Your task to perform on an android device: see sites visited before in the chrome app Image 0: 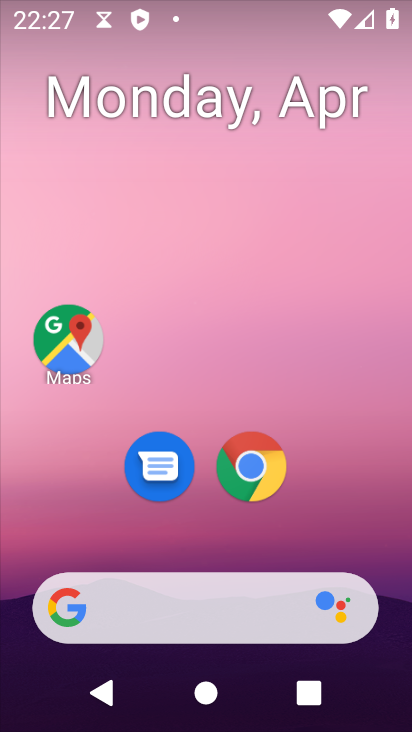
Step 0: click (264, 455)
Your task to perform on an android device: see sites visited before in the chrome app Image 1: 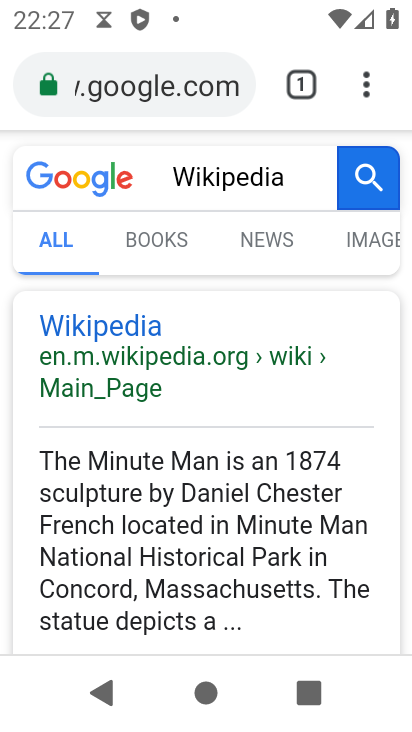
Step 1: click (372, 88)
Your task to perform on an android device: see sites visited before in the chrome app Image 2: 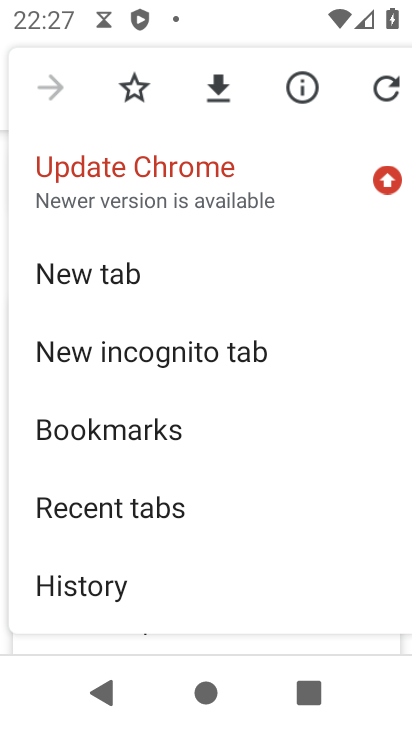
Step 2: click (99, 588)
Your task to perform on an android device: see sites visited before in the chrome app Image 3: 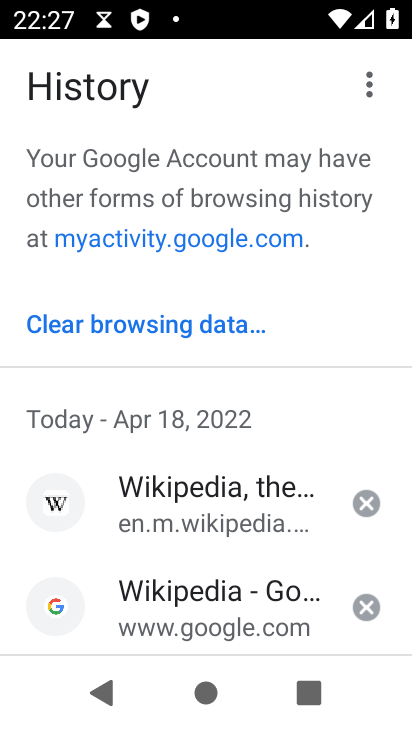
Step 3: task complete